Your task to perform on an android device: Set the phone to "Do not disturb". Image 0: 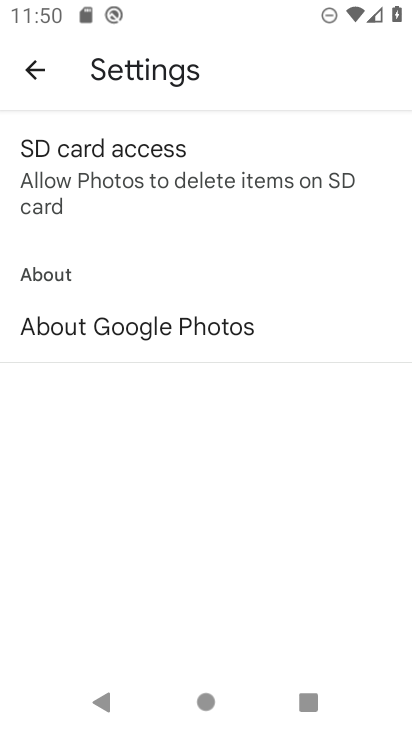
Step 0: press home button
Your task to perform on an android device: Set the phone to "Do not disturb". Image 1: 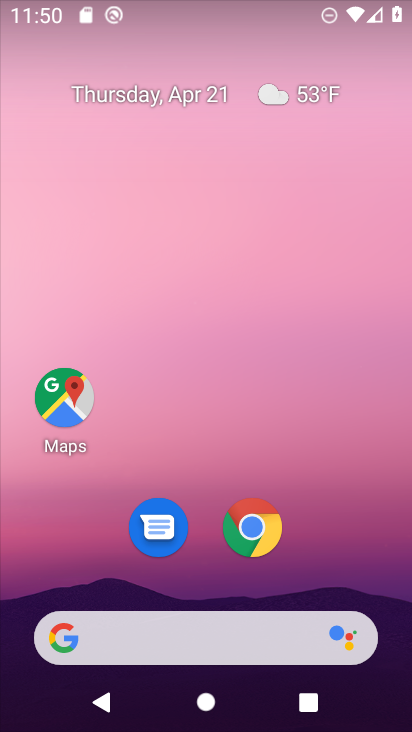
Step 1: drag from (351, 554) to (351, 148)
Your task to perform on an android device: Set the phone to "Do not disturb". Image 2: 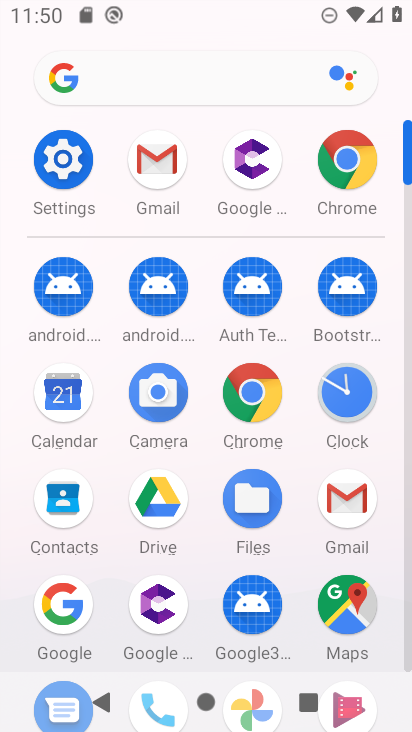
Step 2: click (71, 167)
Your task to perform on an android device: Set the phone to "Do not disturb". Image 3: 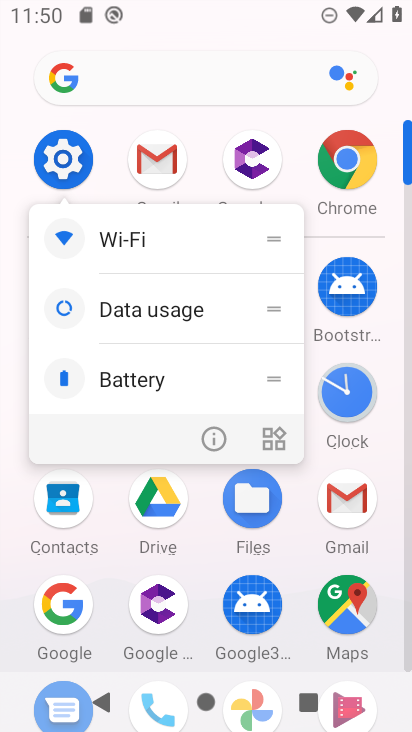
Step 3: click (71, 167)
Your task to perform on an android device: Set the phone to "Do not disturb". Image 4: 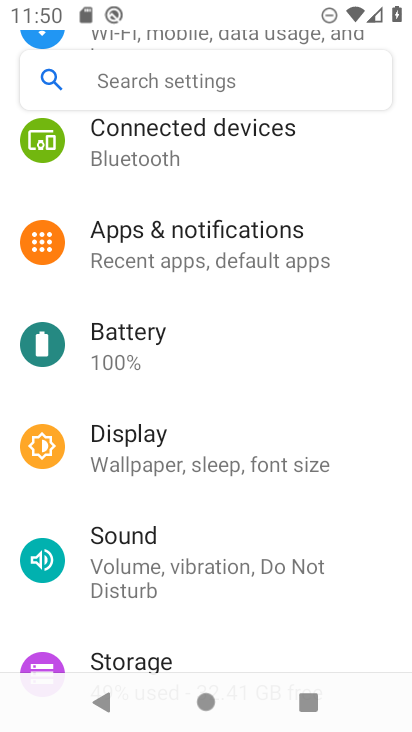
Step 4: drag from (360, 342) to (367, 446)
Your task to perform on an android device: Set the phone to "Do not disturb". Image 5: 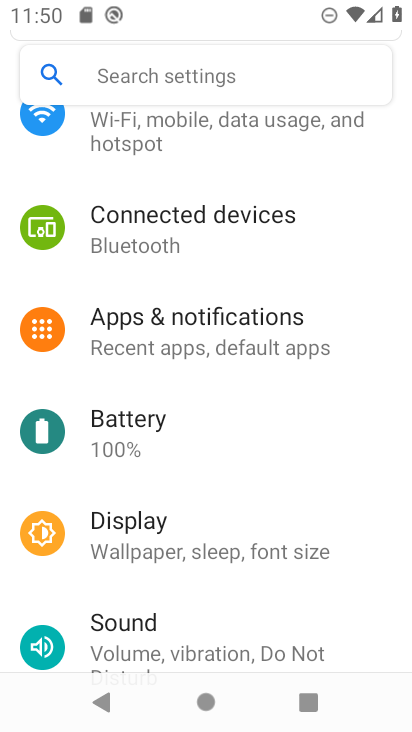
Step 5: drag from (361, 313) to (359, 436)
Your task to perform on an android device: Set the phone to "Do not disturb". Image 6: 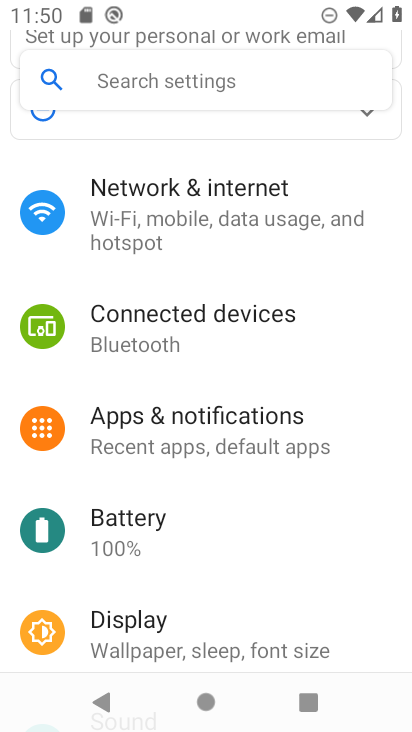
Step 6: drag from (356, 296) to (356, 462)
Your task to perform on an android device: Set the phone to "Do not disturb". Image 7: 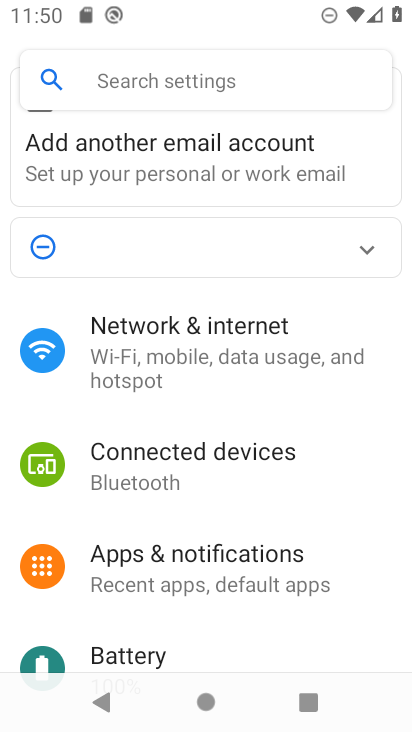
Step 7: drag from (389, 303) to (369, 501)
Your task to perform on an android device: Set the phone to "Do not disturb". Image 8: 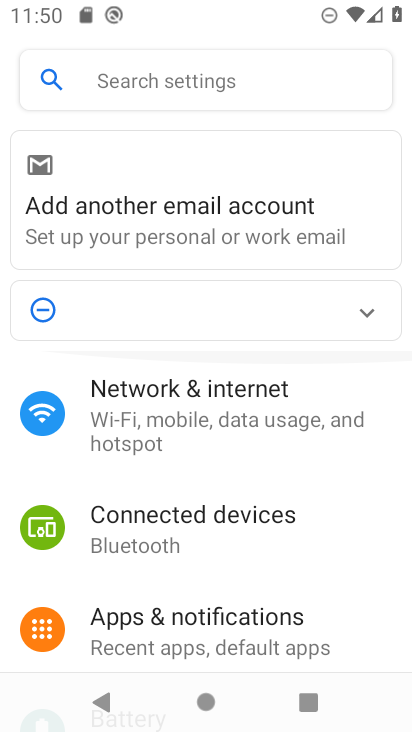
Step 8: drag from (353, 538) to (367, 389)
Your task to perform on an android device: Set the phone to "Do not disturb". Image 9: 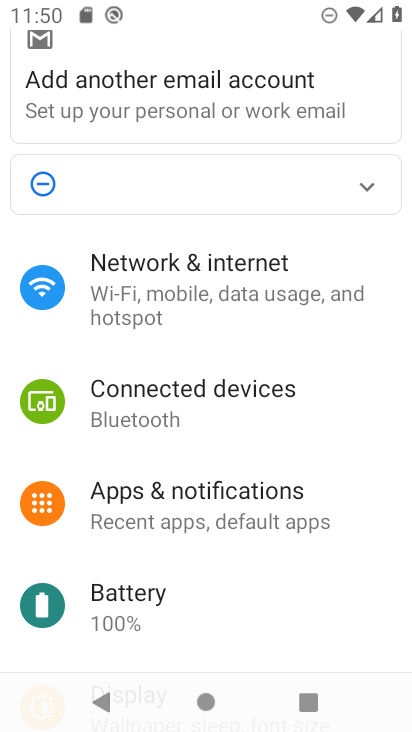
Step 9: drag from (367, 559) to (363, 407)
Your task to perform on an android device: Set the phone to "Do not disturb". Image 10: 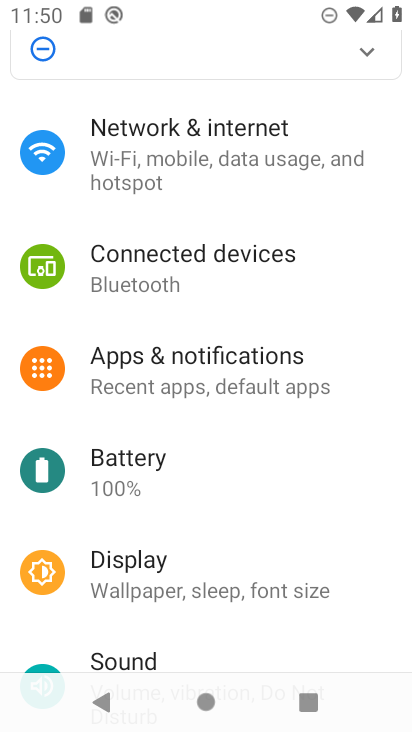
Step 10: drag from (362, 530) to (372, 382)
Your task to perform on an android device: Set the phone to "Do not disturb". Image 11: 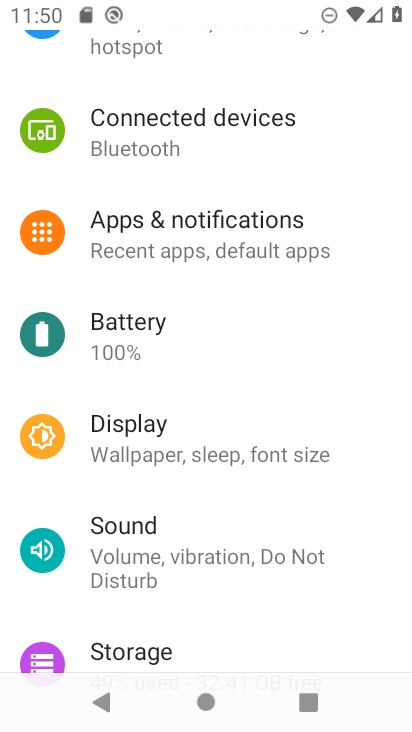
Step 11: drag from (359, 519) to (357, 386)
Your task to perform on an android device: Set the phone to "Do not disturb". Image 12: 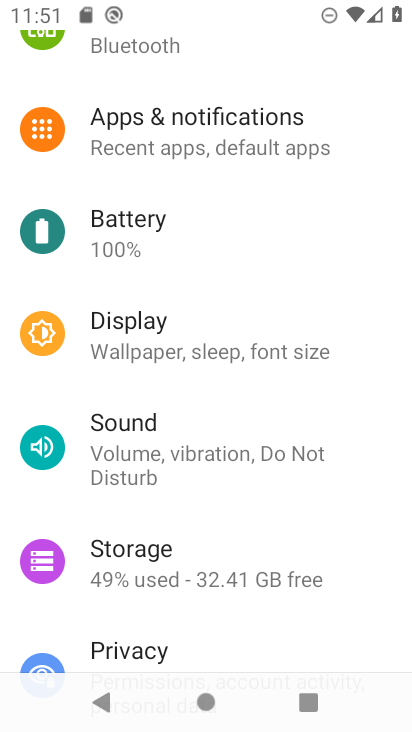
Step 12: click (313, 458)
Your task to perform on an android device: Set the phone to "Do not disturb". Image 13: 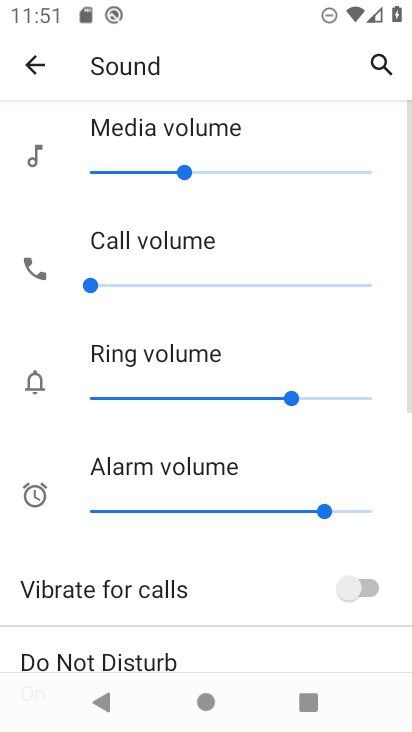
Step 13: drag from (274, 590) to (279, 471)
Your task to perform on an android device: Set the phone to "Do not disturb". Image 14: 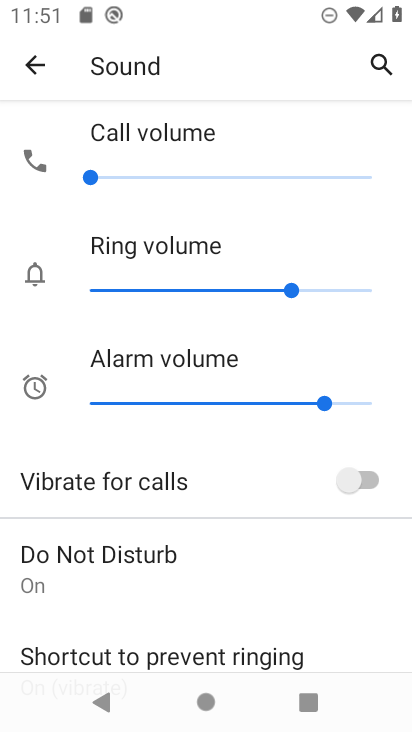
Step 14: click (162, 568)
Your task to perform on an android device: Set the phone to "Do not disturb". Image 15: 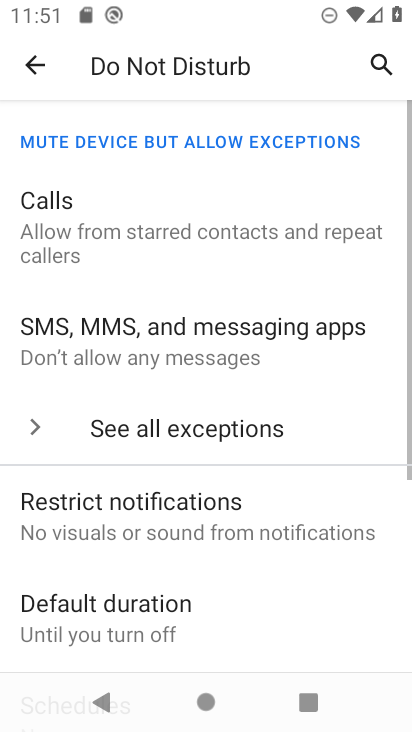
Step 15: task complete